Your task to perform on an android device: change timer sound Image 0: 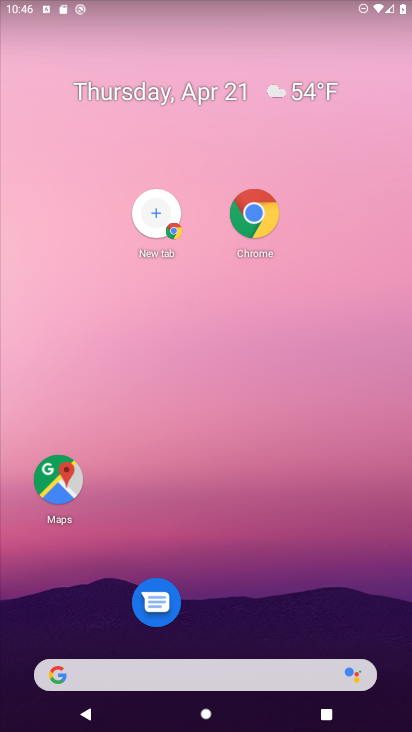
Step 0: drag from (199, 628) to (198, 123)
Your task to perform on an android device: change timer sound Image 1: 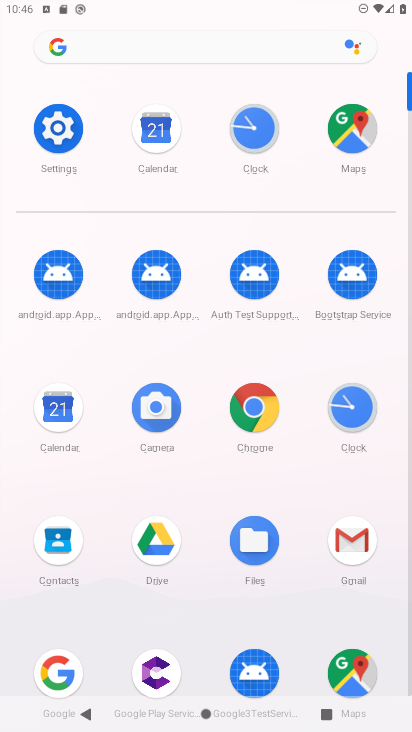
Step 1: click (361, 421)
Your task to perform on an android device: change timer sound Image 2: 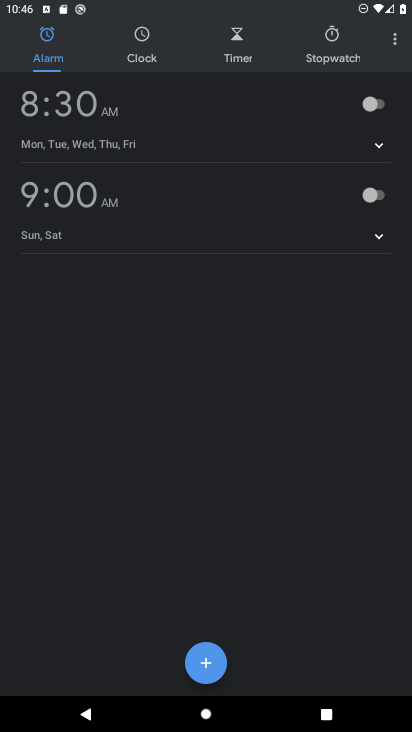
Step 2: click (406, 53)
Your task to perform on an android device: change timer sound Image 3: 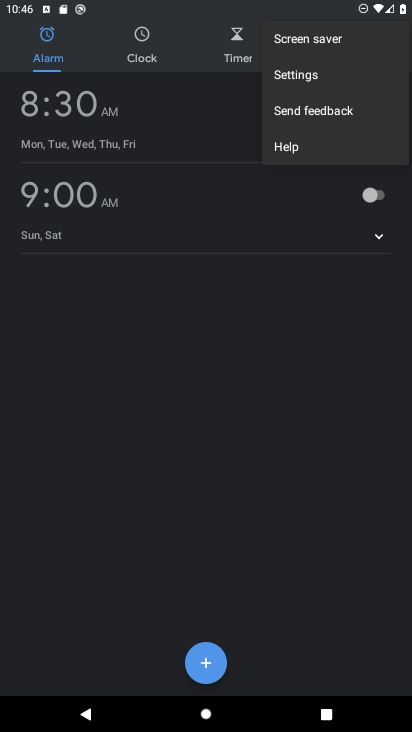
Step 3: click (342, 78)
Your task to perform on an android device: change timer sound Image 4: 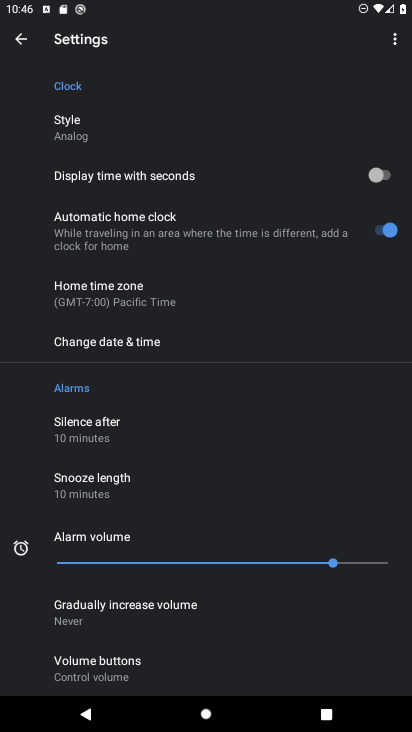
Step 4: drag from (135, 637) to (199, 138)
Your task to perform on an android device: change timer sound Image 5: 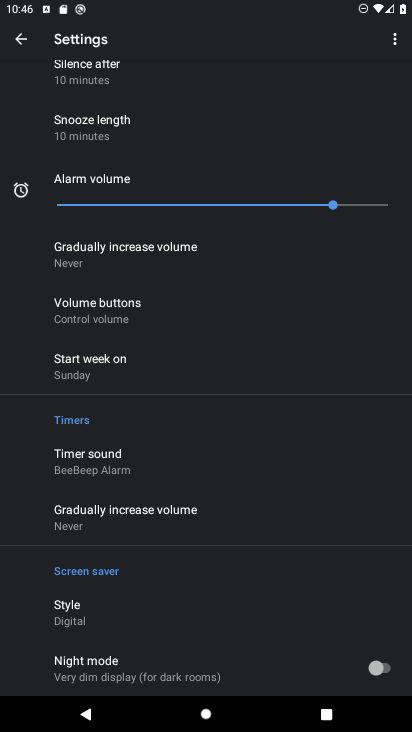
Step 5: click (163, 474)
Your task to perform on an android device: change timer sound Image 6: 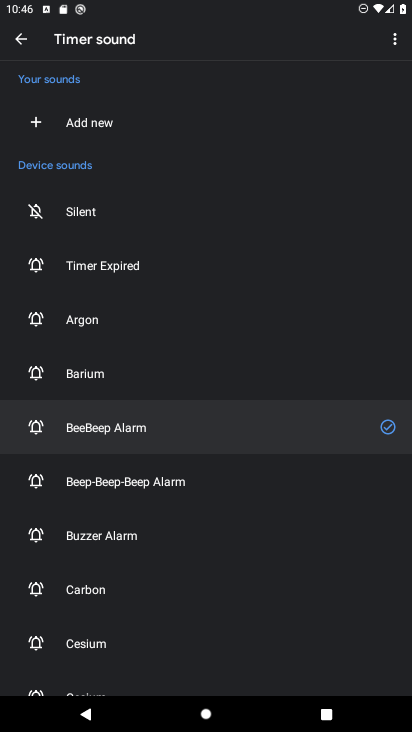
Step 6: click (105, 652)
Your task to perform on an android device: change timer sound Image 7: 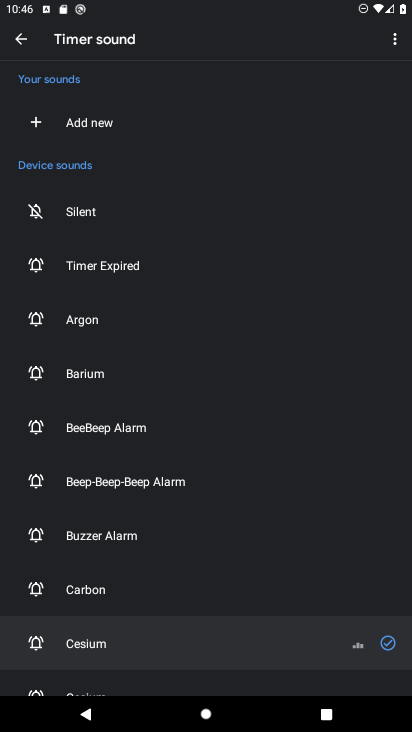
Step 7: task complete